Your task to perform on an android device: Open Google Chrome Image 0: 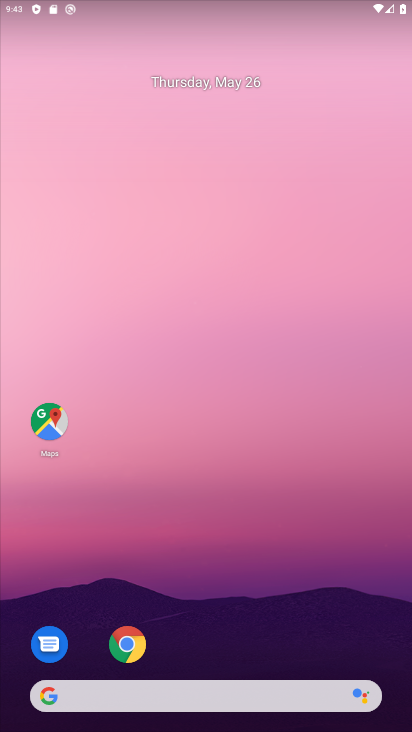
Step 0: drag from (261, 670) to (135, 74)
Your task to perform on an android device: Open Google Chrome Image 1: 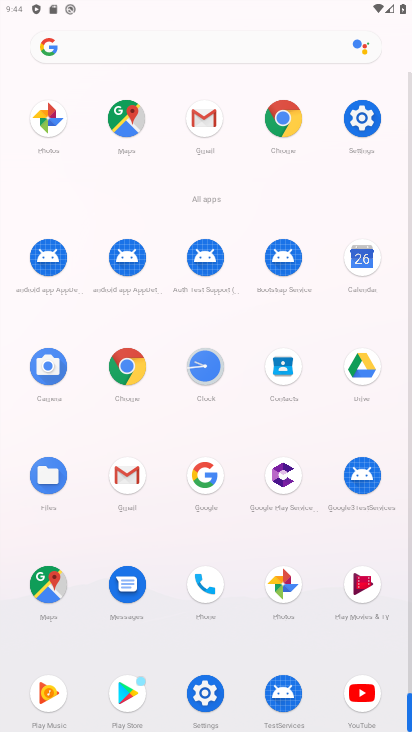
Step 1: click (286, 132)
Your task to perform on an android device: Open Google Chrome Image 2: 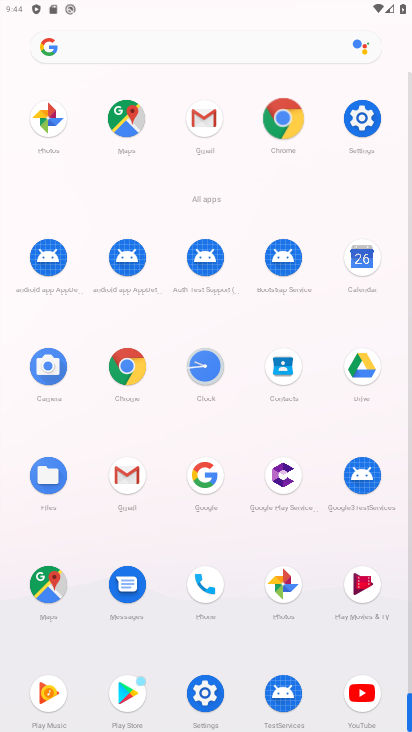
Step 2: click (285, 123)
Your task to perform on an android device: Open Google Chrome Image 3: 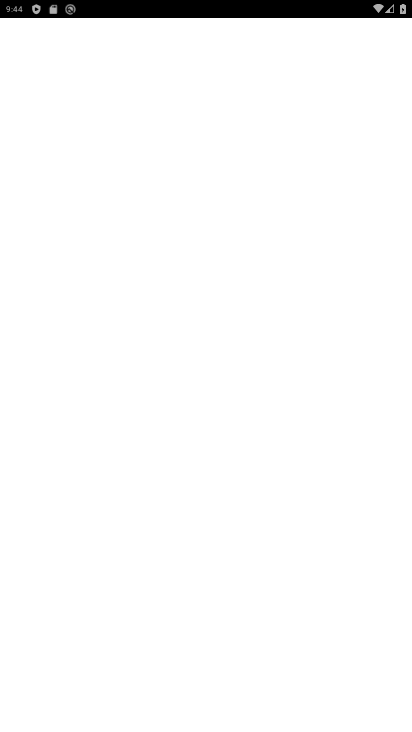
Step 3: click (287, 121)
Your task to perform on an android device: Open Google Chrome Image 4: 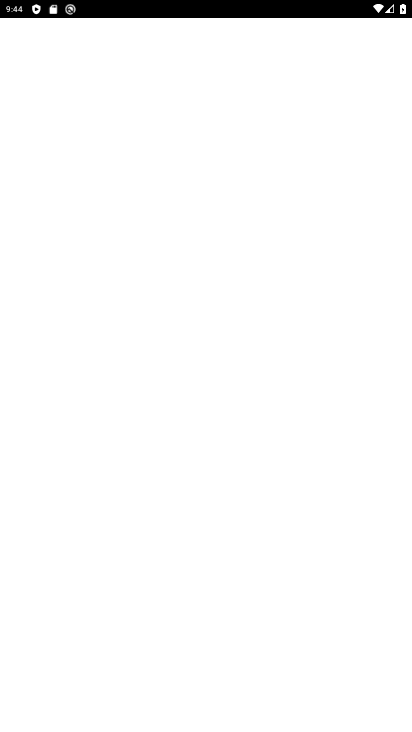
Step 4: click (287, 121)
Your task to perform on an android device: Open Google Chrome Image 5: 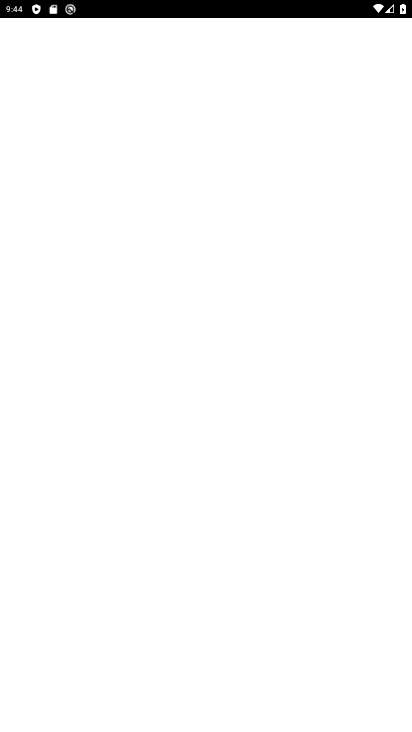
Step 5: click (291, 125)
Your task to perform on an android device: Open Google Chrome Image 6: 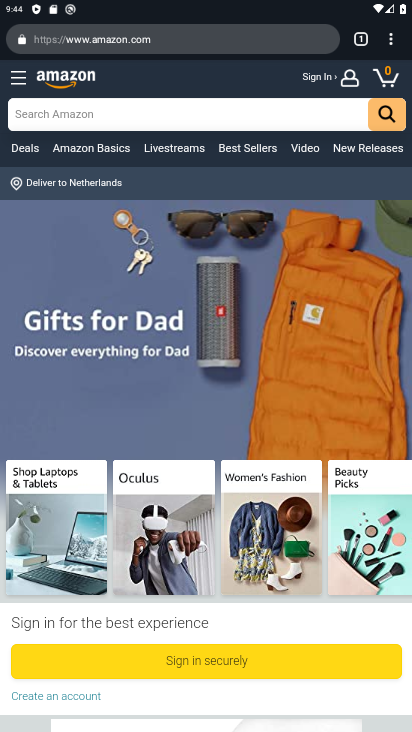
Step 6: task complete